Your task to perform on an android device: change the clock display to show seconds Image 0: 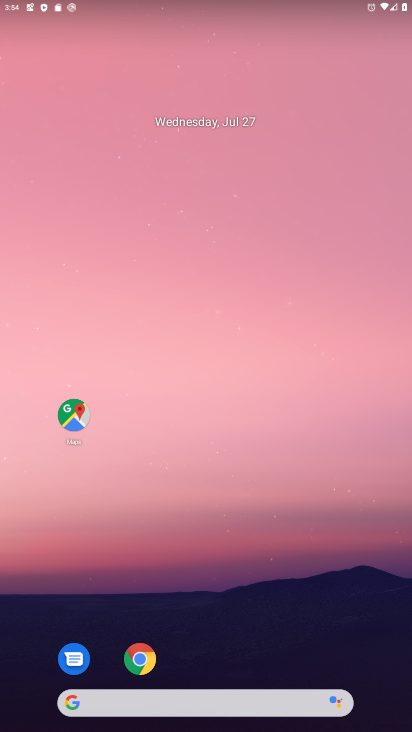
Step 0: drag from (291, 631) to (288, 97)
Your task to perform on an android device: change the clock display to show seconds Image 1: 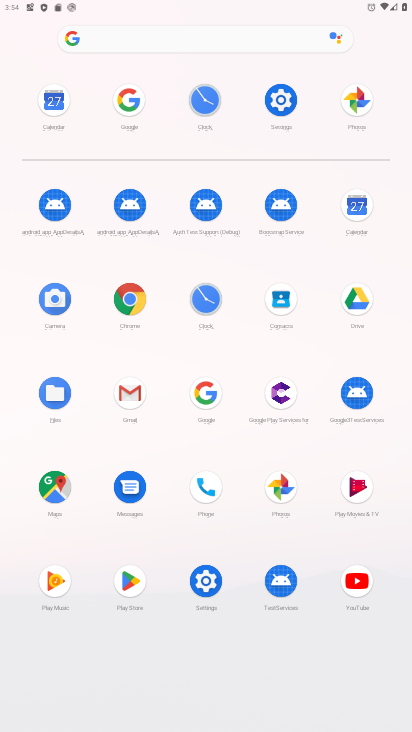
Step 1: click (203, 304)
Your task to perform on an android device: change the clock display to show seconds Image 2: 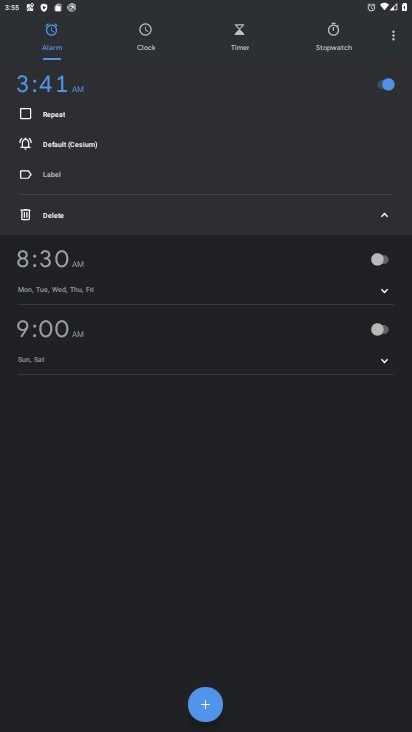
Step 2: click (394, 38)
Your task to perform on an android device: change the clock display to show seconds Image 3: 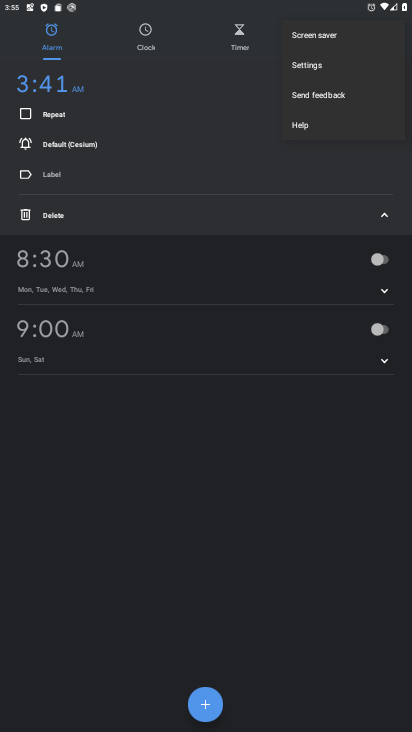
Step 3: click (312, 64)
Your task to perform on an android device: change the clock display to show seconds Image 4: 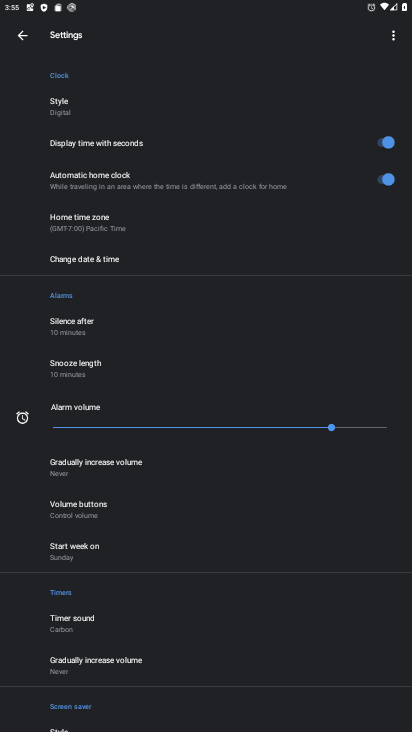
Step 4: task complete